Your task to perform on an android device: Show me popular games on the Play Store Image 0: 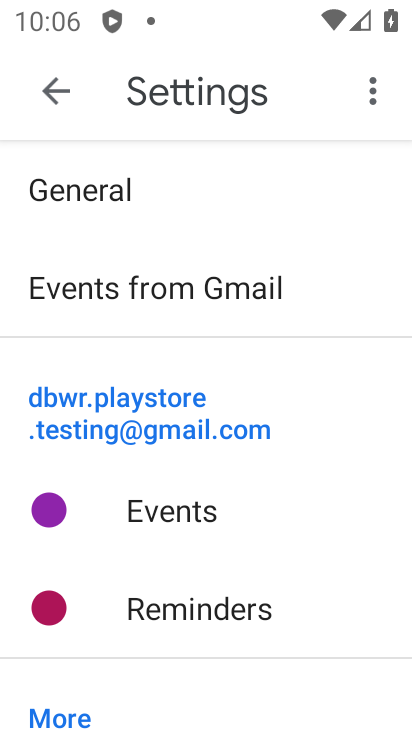
Step 0: press home button
Your task to perform on an android device: Show me popular games on the Play Store Image 1: 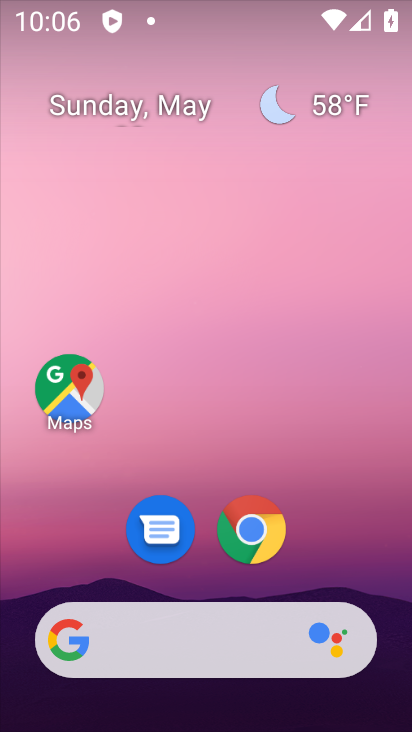
Step 1: drag from (192, 582) to (300, 6)
Your task to perform on an android device: Show me popular games on the Play Store Image 2: 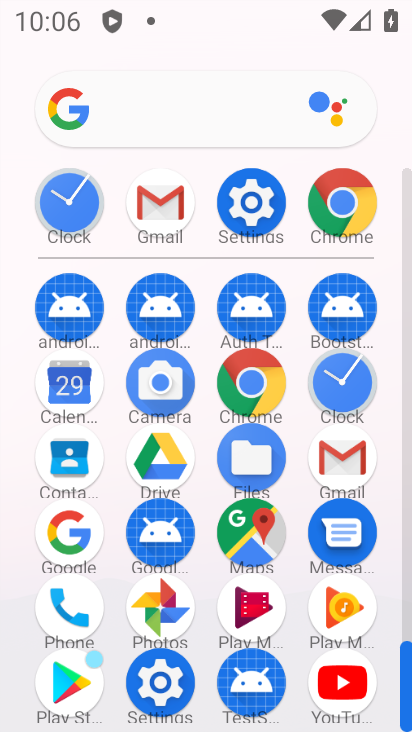
Step 2: click (71, 666)
Your task to perform on an android device: Show me popular games on the Play Store Image 3: 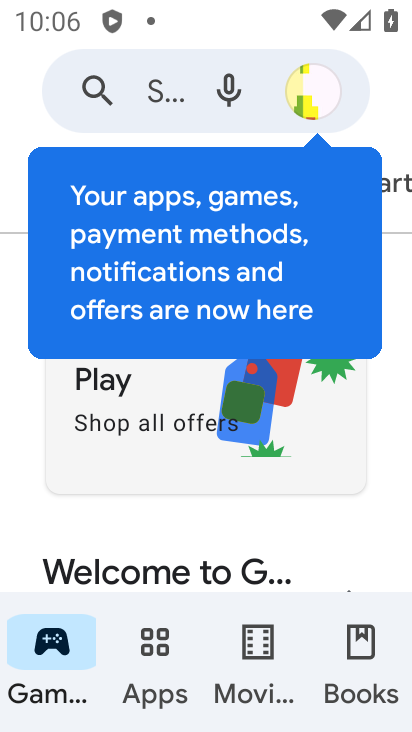
Step 3: click (18, 201)
Your task to perform on an android device: Show me popular games on the Play Store Image 4: 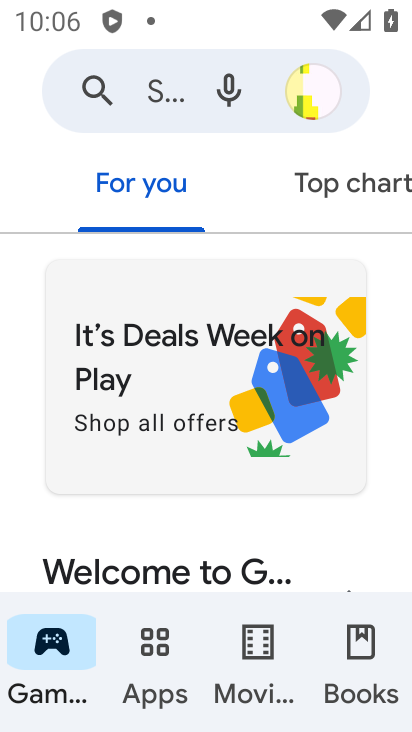
Step 4: click (373, 192)
Your task to perform on an android device: Show me popular games on the Play Store Image 5: 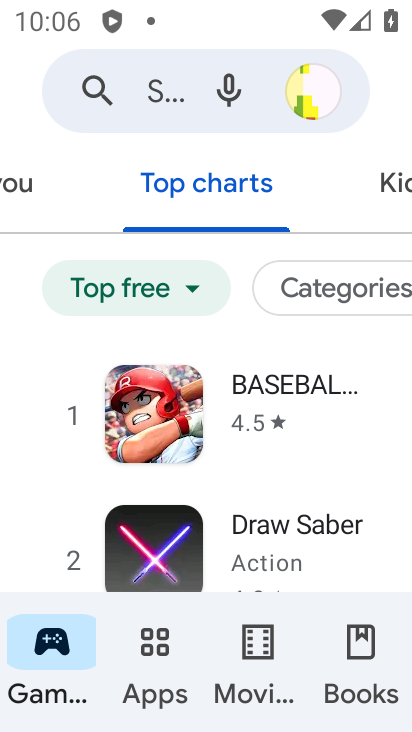
Step 5: task complete